Your task to perform on an android device: toggle show notifications on the lock screen Image 0: 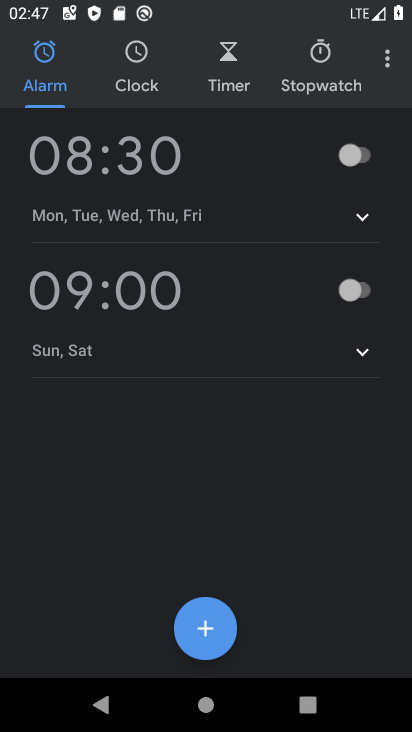
Step 0: drag from (117, 460) to (220, 230)
Your task to perform on an android device: toggle show notifications on the lock screen Image 1: 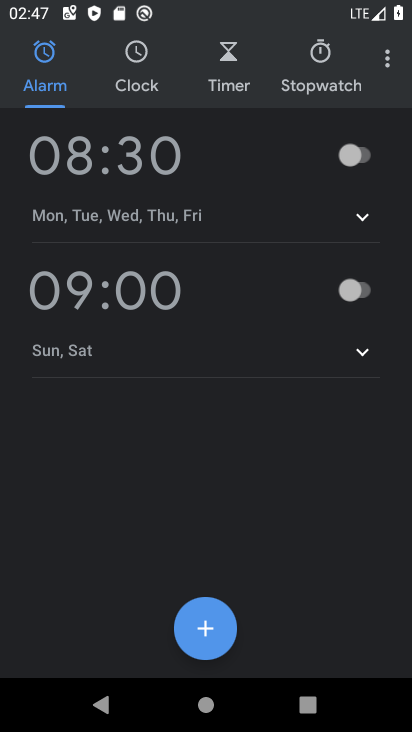
Step 1: press home button
Your task to perform on an android device: toggle show notifications on the lock screen Image 2: 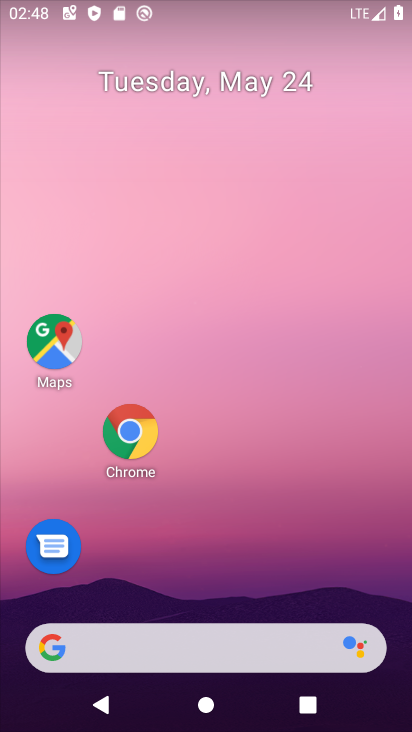
Step 2: drag from (248, 578) to (317, 102)
Your task to perform on an android device: toggle show notifications on the lock screen Image 3: 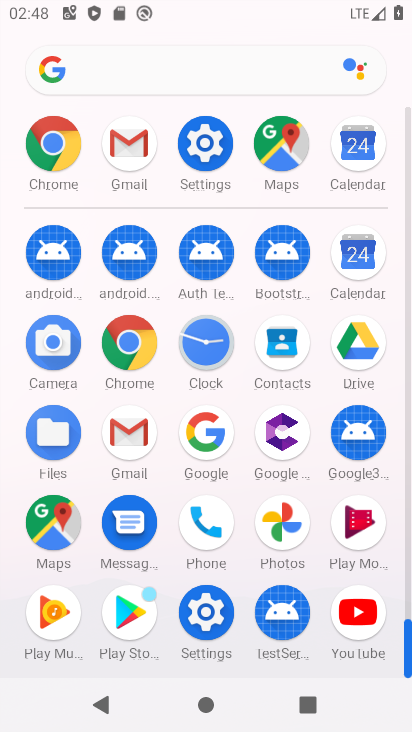
Step 3: click (209, 150)
Your task to perform on an android device: toggle show notifications on the lock screen Image 4: 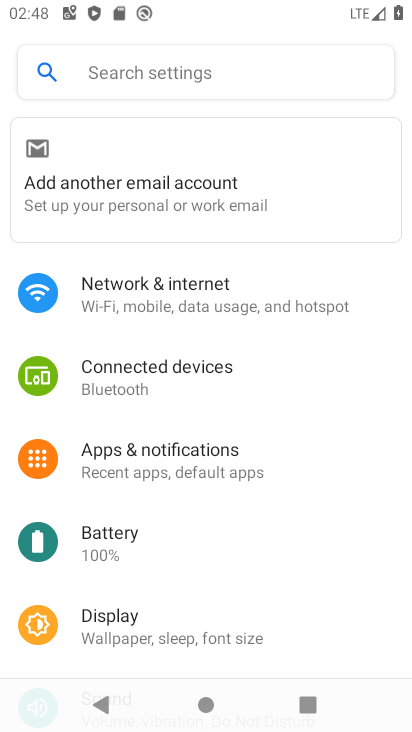
Step 4: click (176, 465)
Your task to perform on an android device: toggle show notifications on the lock screen Image 5: 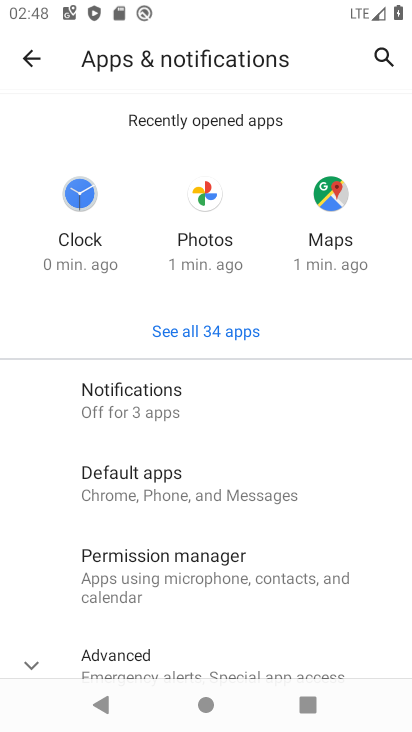
Step 5: click (204, 402)
Your task to perform on an android device: toggle show notifications on the lock screen Image 6: 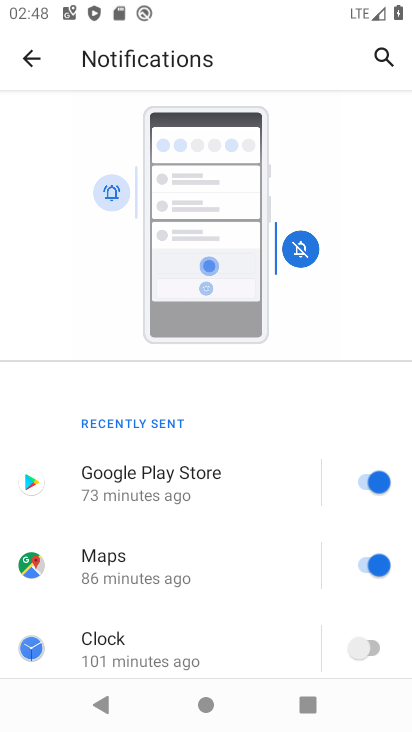
Step 6: drag from (252, 596) to (369, 91)
Your task to perform on an android device: toggle show notifications on the lock screen Image 7: 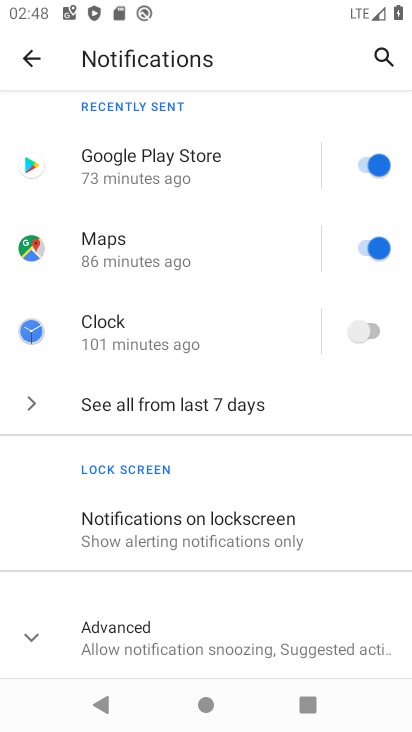
Step 7: click (262, 522)
Your task to perform on an android device: toggle show notifications on the lock screen Image 8: 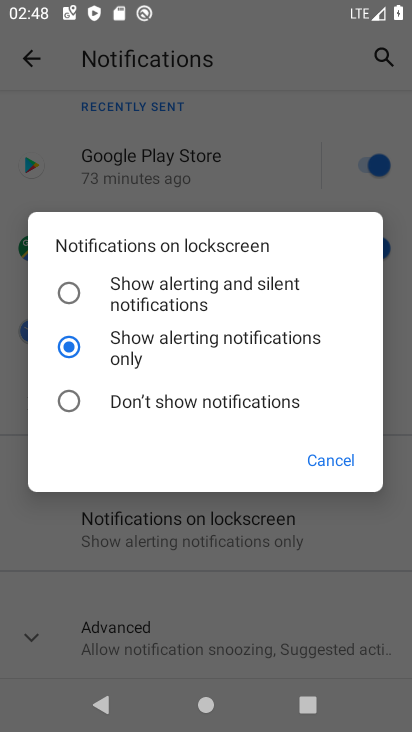
Step 8: click (137, 283)
Your task to perform on an android device: toggle show notifications on the lock screen Image 9: 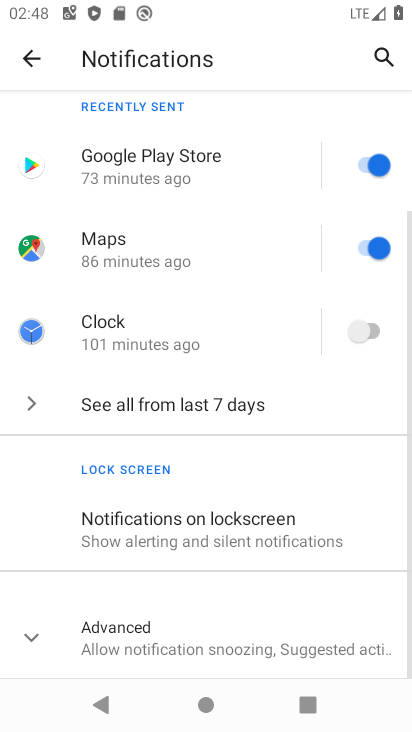
Step 9: task complete